Your task to perform on an android device: make emails show in primary in the gmail app Image 0: 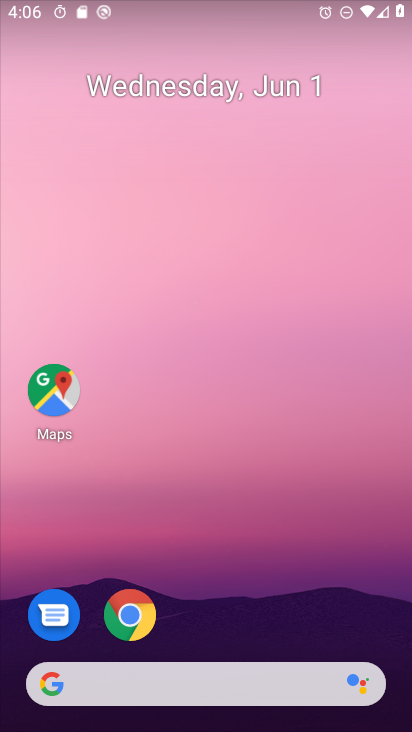
Step 0: drag from (308, 674) to (339, 40)
Your task to perform on an android device: make emails show in primary in the gmail app Image 1: 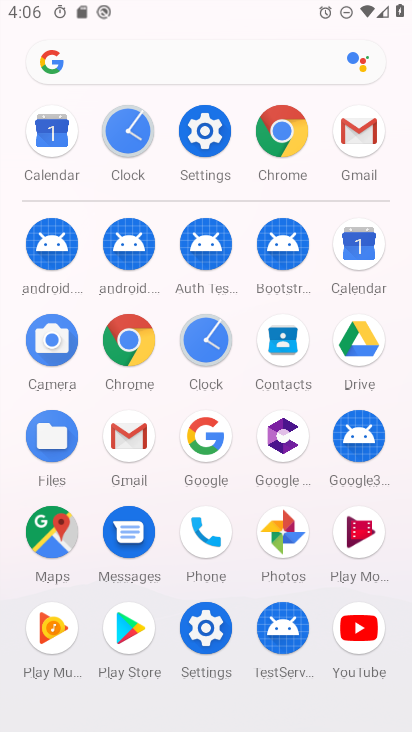
Step 1: click (127, 440)
Your task to perform on an android device: make emails show in primary in the gmail app Image 2: 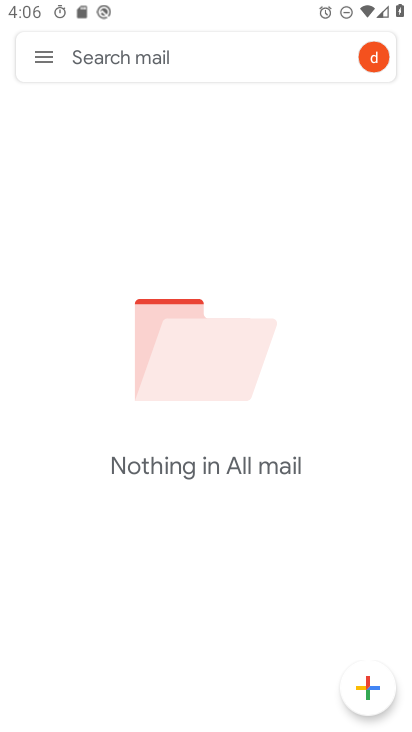
Step 2: click (25, 44)
Your task to perform on an android device: make emails show in primary in the gmail app Image 3: 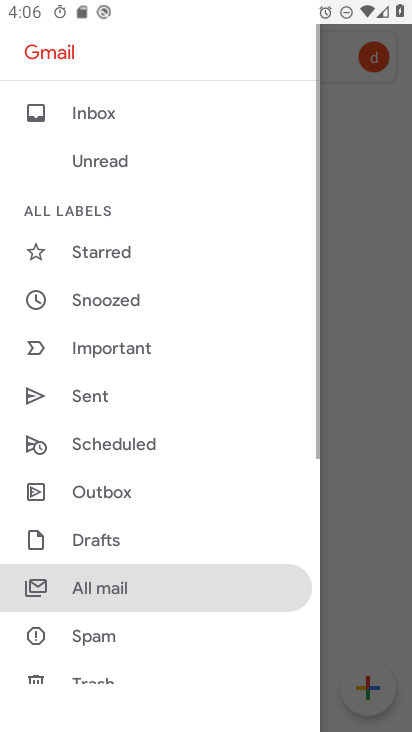
Step 3: drag from (114, 632) to (220, 8)
Your task to perform on an android device: make emails show in primary in the gmail app Image 4: 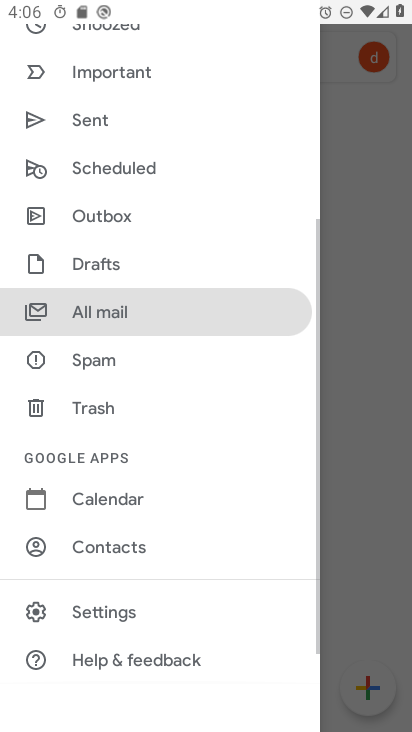
Step 4: click (118, 618)
Your task to perform on an android device: make emails show in primary in the gmail app Image 5: 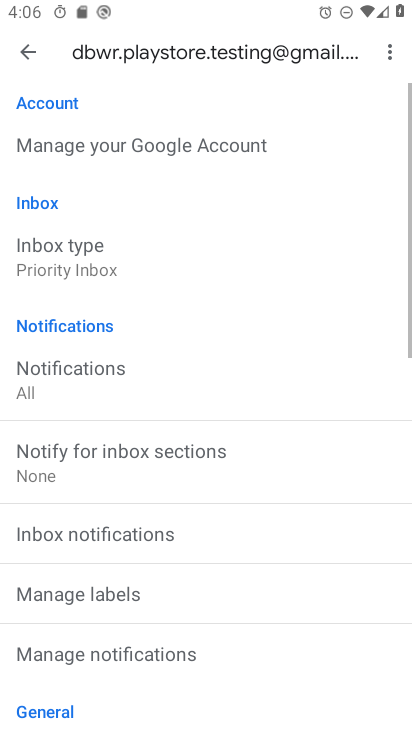
Step 5: click (151, 270)
Your task to perform on an android device: make emails show in primary in the gmail app Image 6: 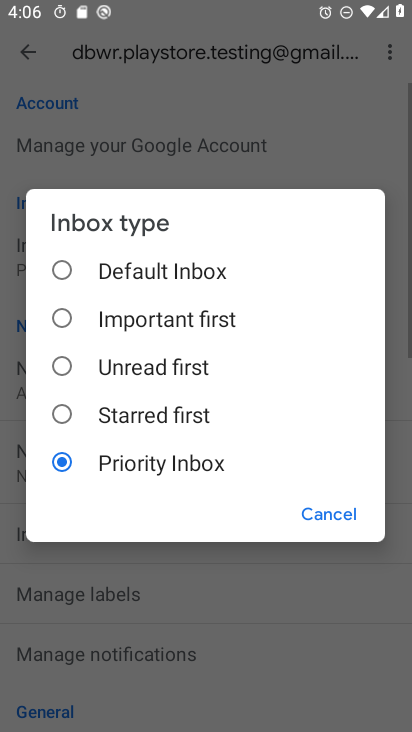
Step 6: click (95, 265)
Your task to perform on an android device: make emails show in primary in the gmail app Image 7: 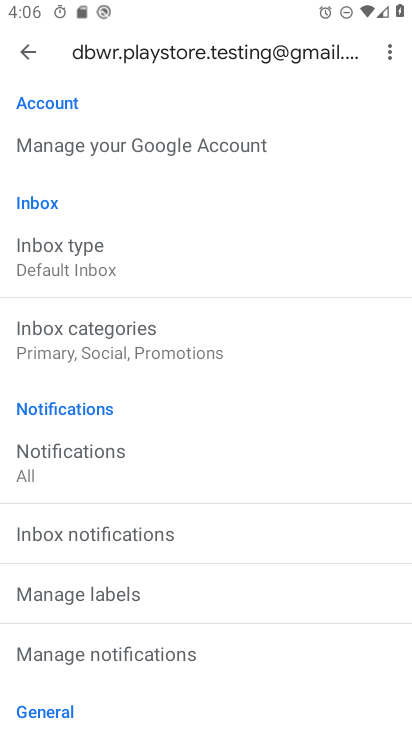
Step 7: press back button
Your task to perform on an android device: make emails show in primary in the gmail app Image 8: 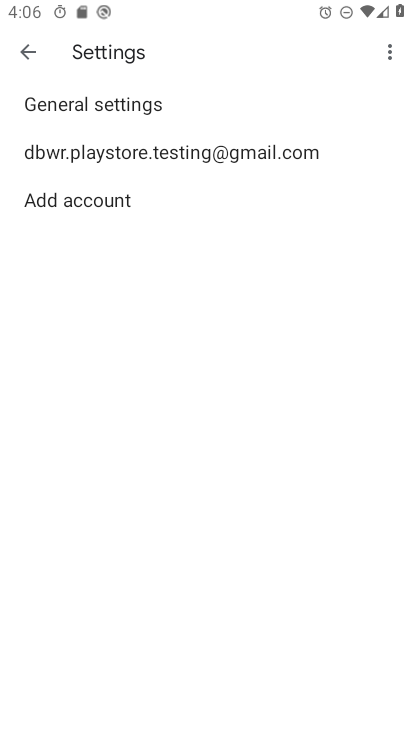
Step 8: press back button
Your task to perform on an android device: make emails show in primary in the gmail app Image 9: 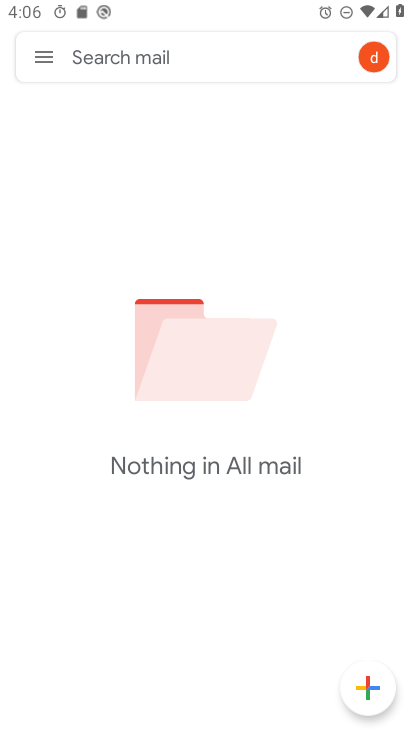
Step 9: click (31, 44)
Your task to perform on an android device: make emails show in primary in the gmail app Image 10: 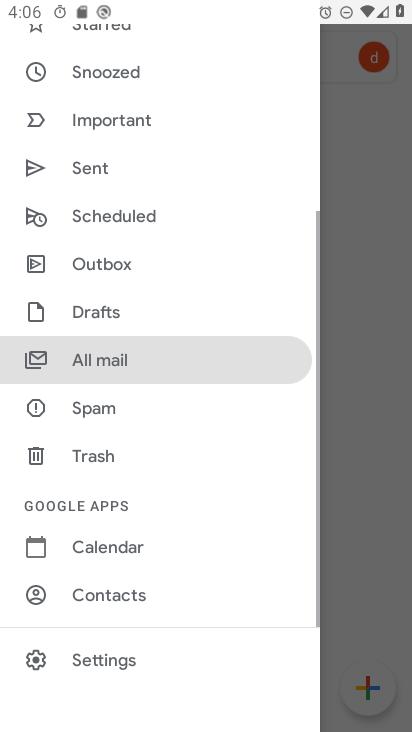
Step 10: drag from (133, 232) to (165, 702)
Your task to perform on an android device: make emails show in primary in the gmail app Image 11: 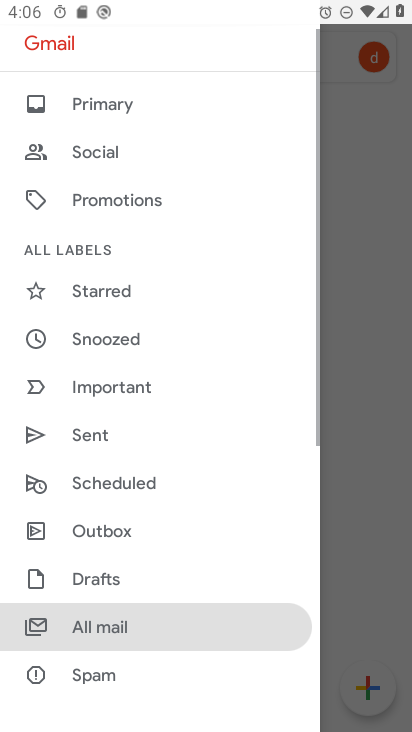
Step 11: click (196, 108)
Your task to perform on an android device: make emails show in primary in the gmail app Image 12: 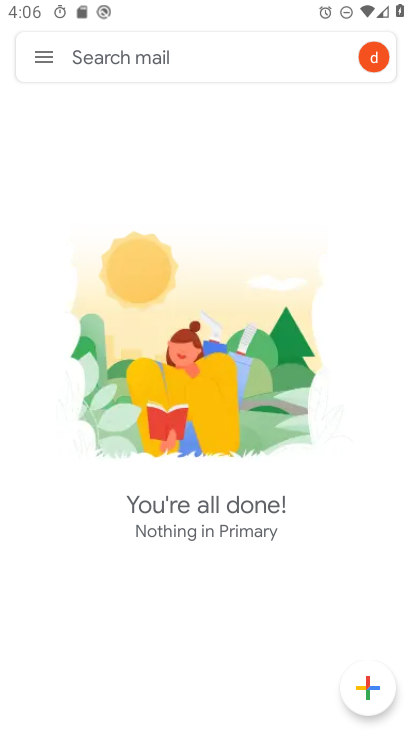
Step 12: task complete